Your task to perform on an android device: Go to Amazon Image 0: 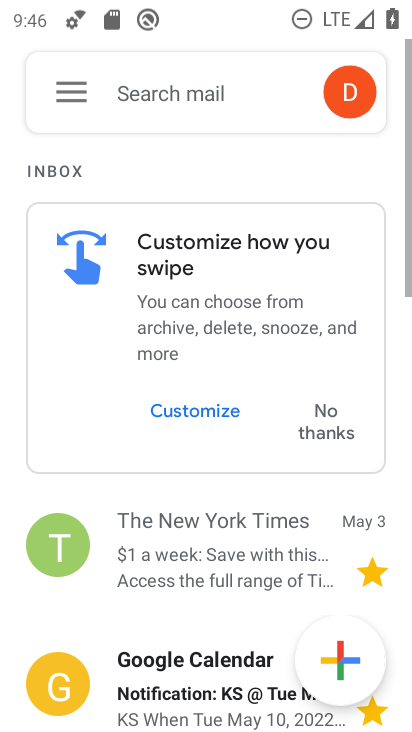
Step 0: press home button
Your task to perform on an android device: Go to Amazon Image 1: 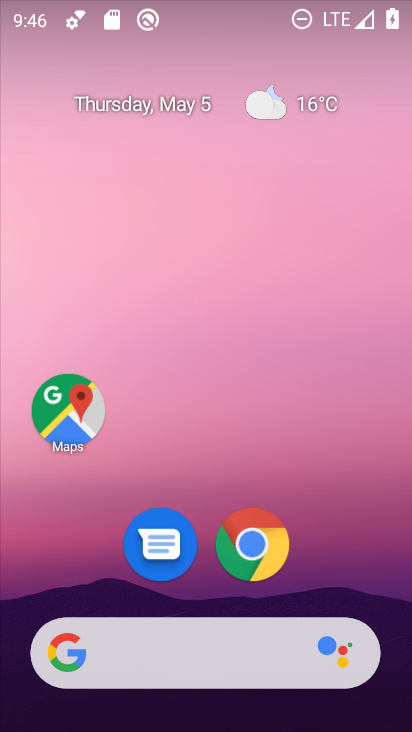
Step 1: drag from (394, 617) to (235, 23)
Your task to perform on an android device: Go to Amazon Image 2: 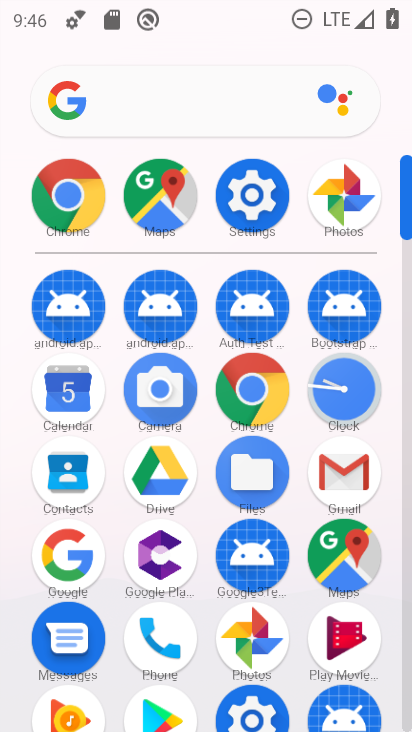
Step 2: click (272, 382)
Your task to perform on an android device: Go to Amazon Image 3: 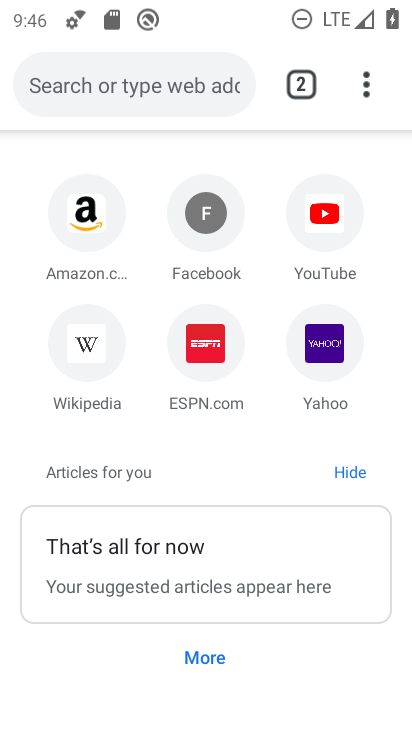
Step 3: click (106, 225)
Your task to perform on an android device: Go to Amazon Image 4: 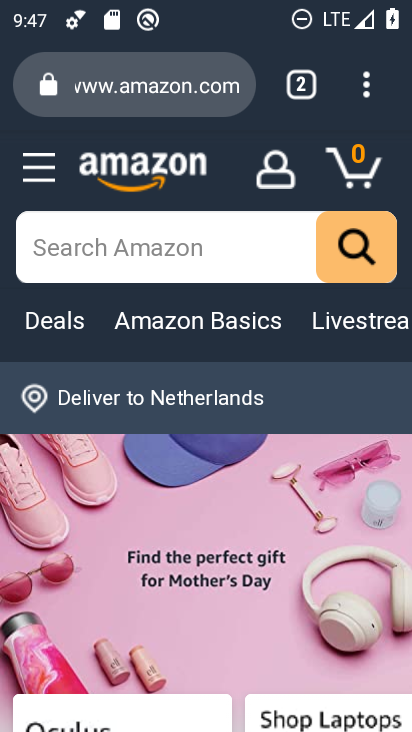
Step 4: task complete